Your task to perform on an android device: turn off improve location accuracy Image 0: 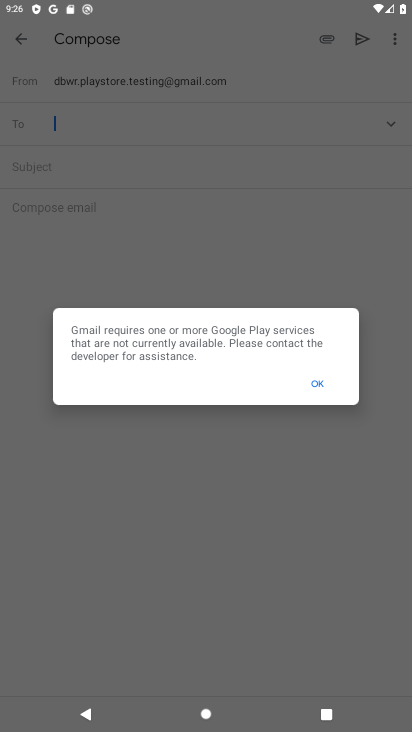
Step 0: click (311, 393)
Your task to perform on an android device: turn off improve location accuracy Image 1: 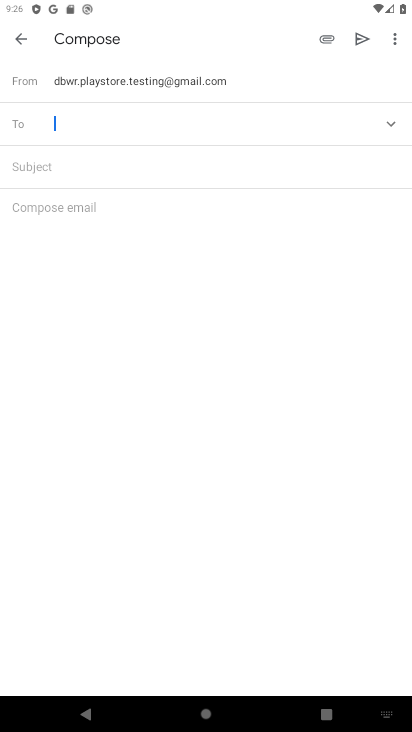
Step 1: press home button
Your task to perform on an android device: turn off improve location accuracy Image 2: 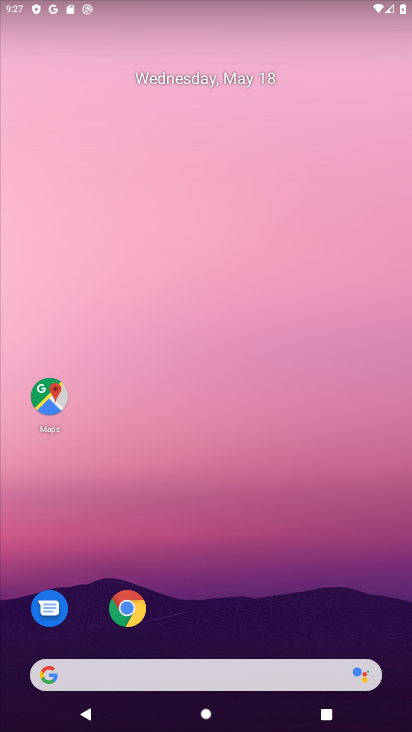
Step 2: drag from (215, 633) to (124, 103)
Your task to perform on an android device: turn off improve location accuracy Image 3: 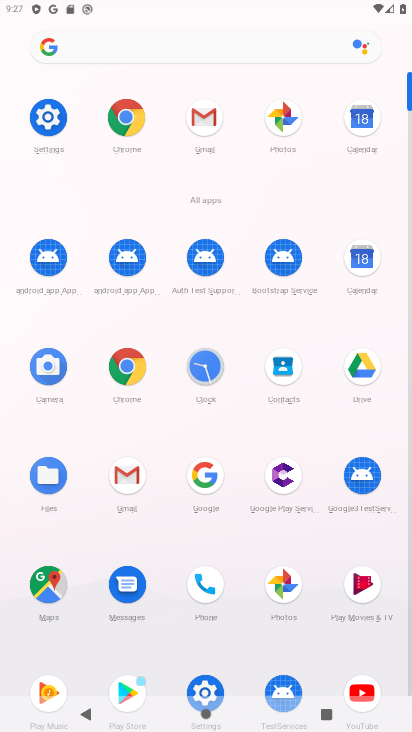
Step 3: click (58, 116)
Your task to perform on an android device: turn off improve location accuracy Image 4: 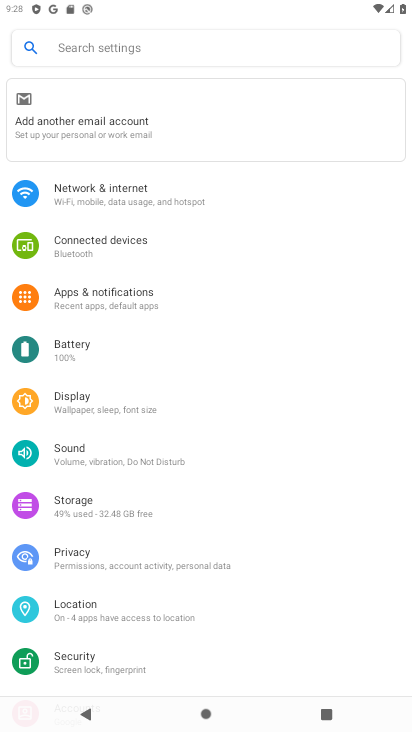
Step 4: click (105, 629)
Your task to perform on an android device: turn off improve location accuracy Image 5: 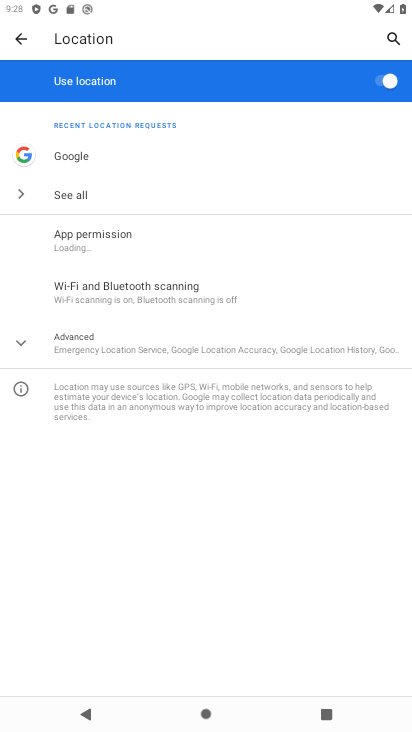
Step 5: click (117, 314)
Your task to perform on an android device: turn off improve location accuracy Image 6: 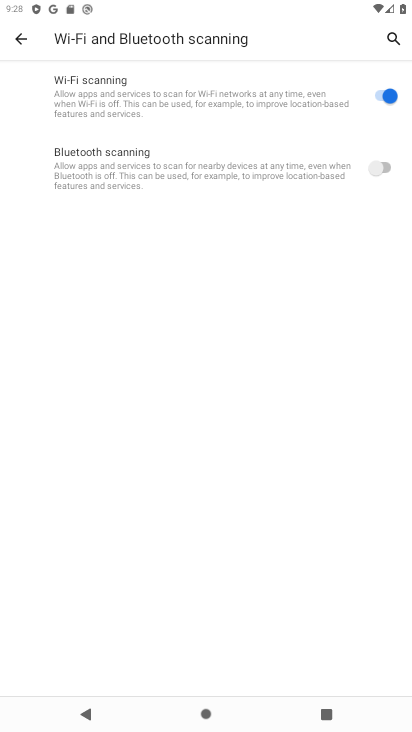
Step 6: click (12, 41)
Your task to perform on an android device: turn off improve location accuracy Image 7: 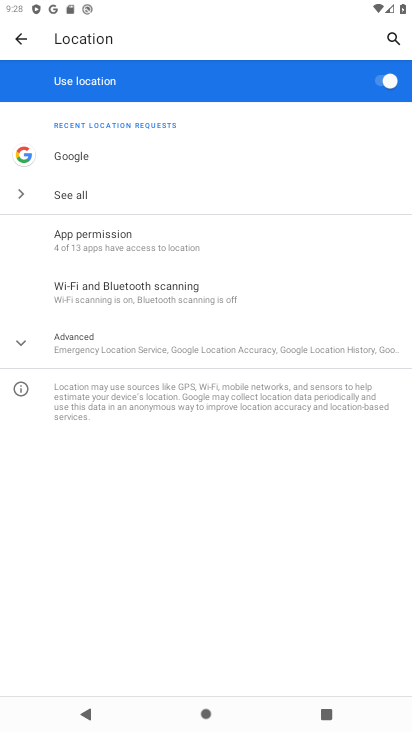
Step 7: click (82, 325)
Your task to perform on an android device: turn off improve location accuracy Image 8: 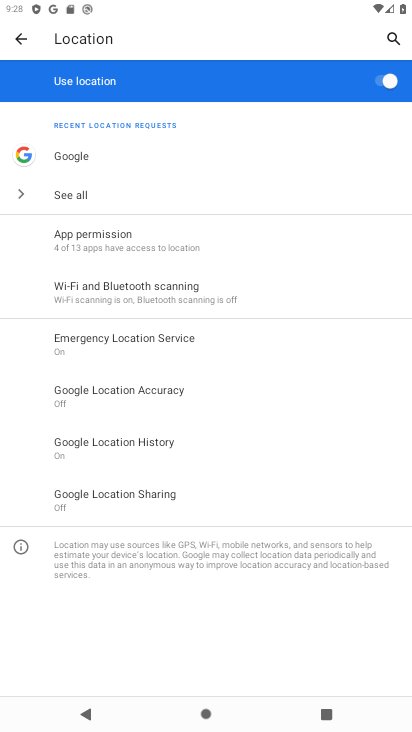
Step 8: click (132, 392)
Your task to perform on an android device: turn off improve location accuracy Image 9: 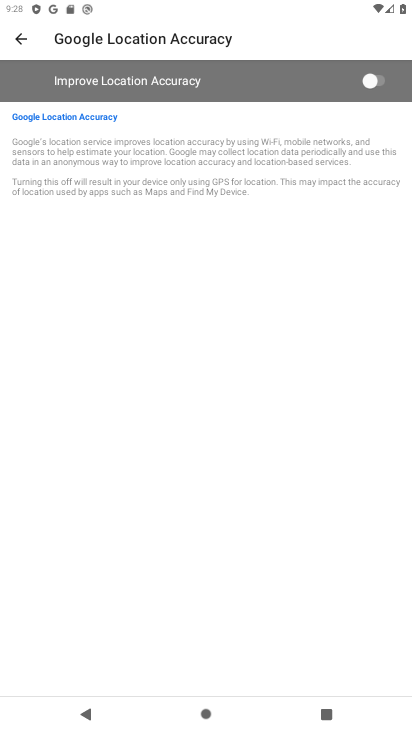
Step 9: task complete